Your task to perform on an android device: Open calendar and show me the third week of next month Image 0: 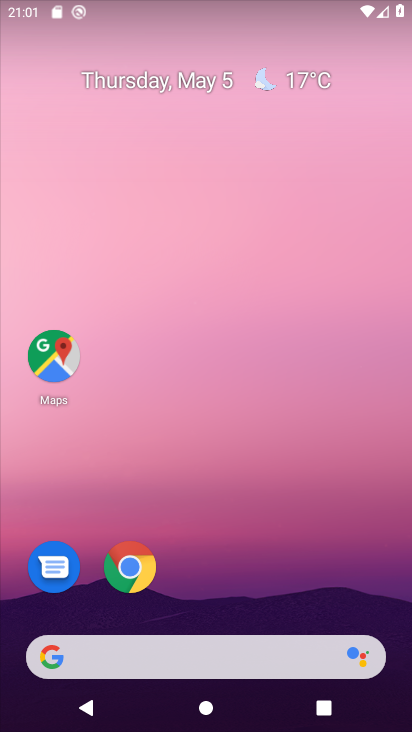
Step 0: drag from (270, 549) to (220, 45)
Your task to perform on an android device: Open calendar and show me the third week of next month Image 1: 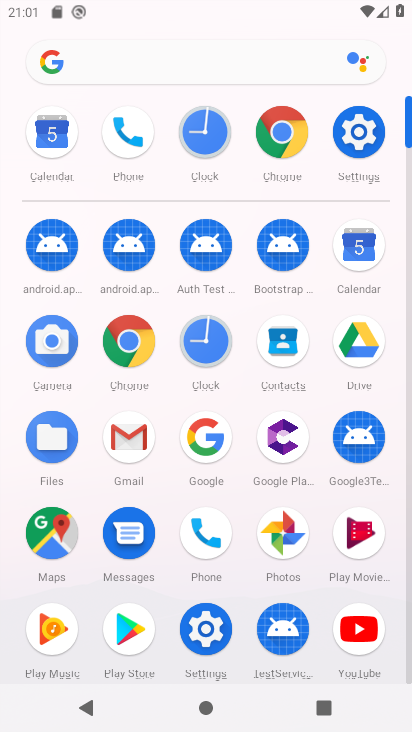
Step 1: click (356, 251)
Your task to perform on an android device: Open calendar and show me the third week of next month Image 2: 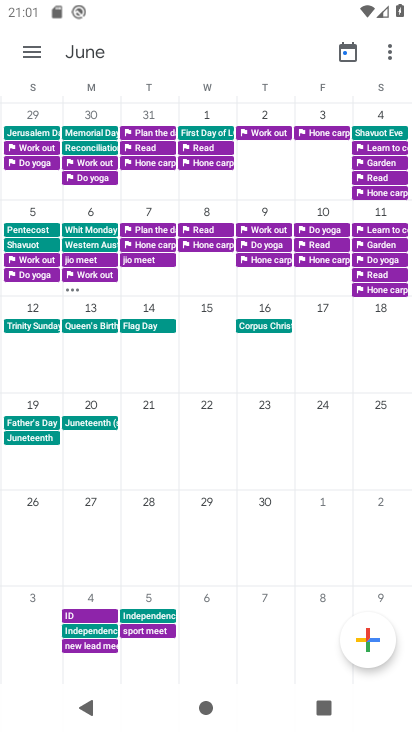
Step 2: drag from (32, 361) to (410, 441)
Your task to perform on an android device: Open calendar and show me the third week of next month Image 3: 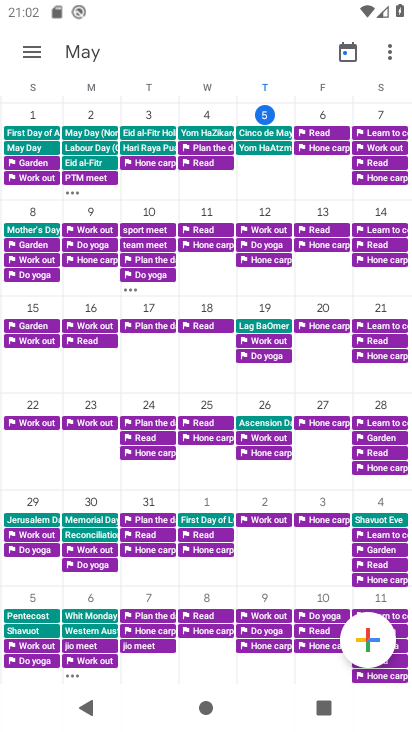
Step 3: drag from (343, 379) to (0, 392)
Your task to perform on an android device: Open calendar and show me the third week of next month Image 4: 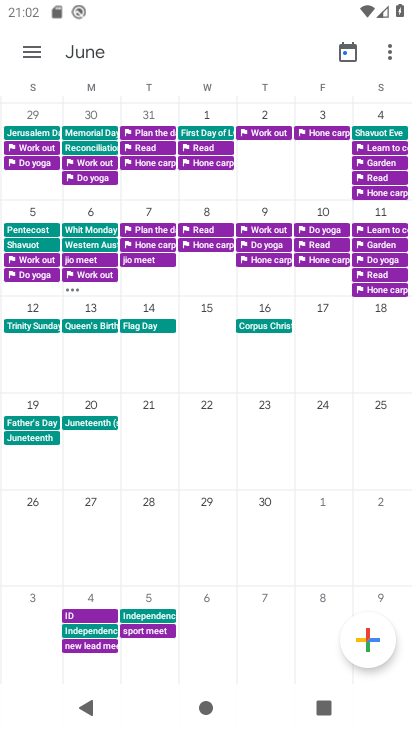
Step 4: drag from (374, 453) to (25, 401)
Your task to perform on an android device: Open calendar and show me the third week of next month Image 5: 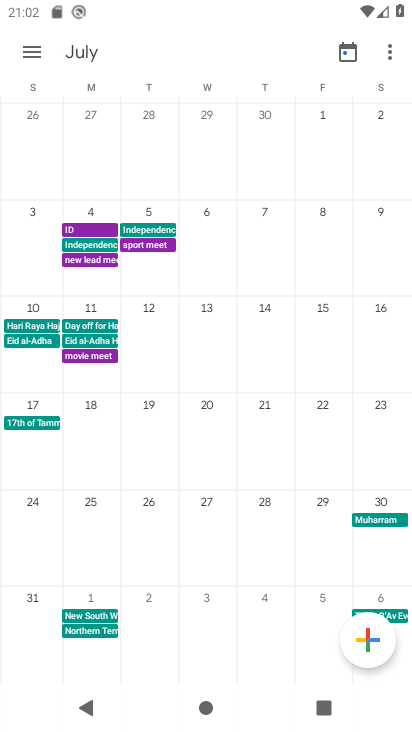
Step 5: drag from (47, 434) to (398, 497)
Your task to perform on an android device: Open calendar and show me the third week of next month Image 6: 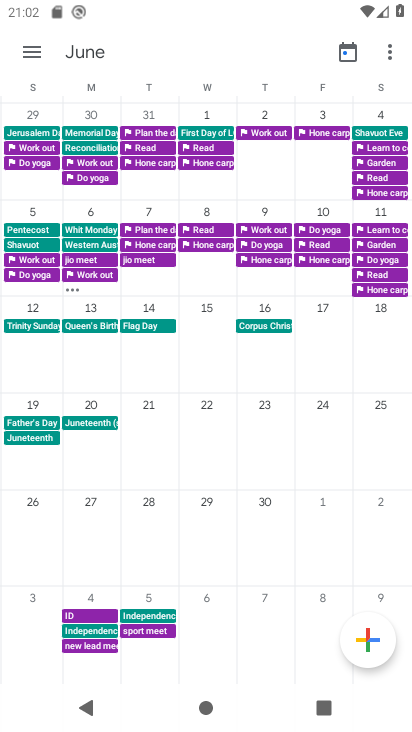
Step 6: drag from (39, 375) to (410, 425)
Your task to perform on an android device: Open calendar and show me the third week of next month Image 7: 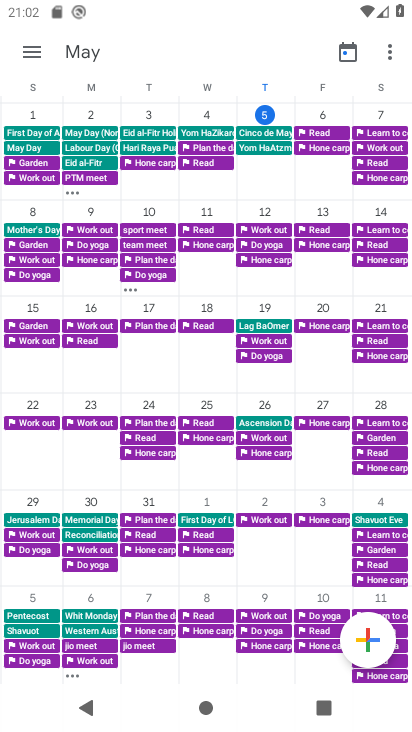
Step 7: click (33, 49)
Your task to perform on an android device: Open calendar and show me the third week of next month Image 8: 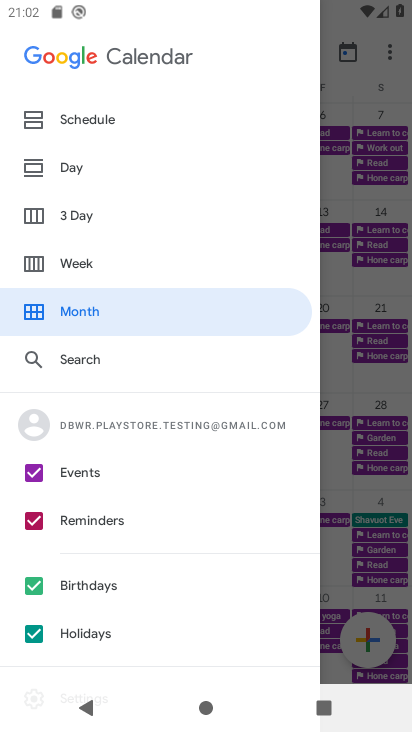
Step 8: click (63, 251)
Your task to perform on an android device: Open calendar and show me the third week of next month Image 9: 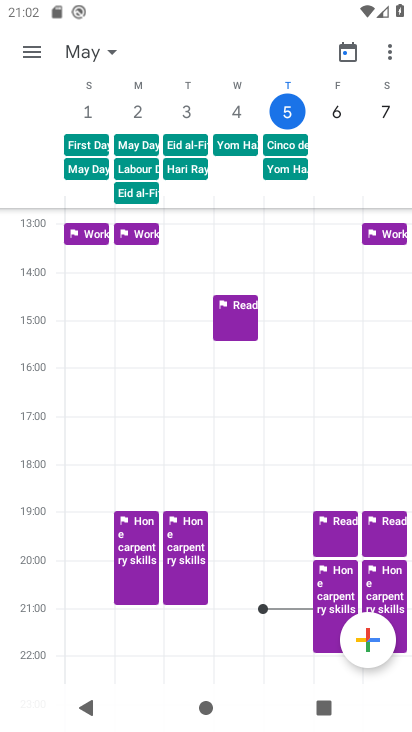
Step 9: task complete